Your task to perform on an android device: turn off sleep mode Image 0: 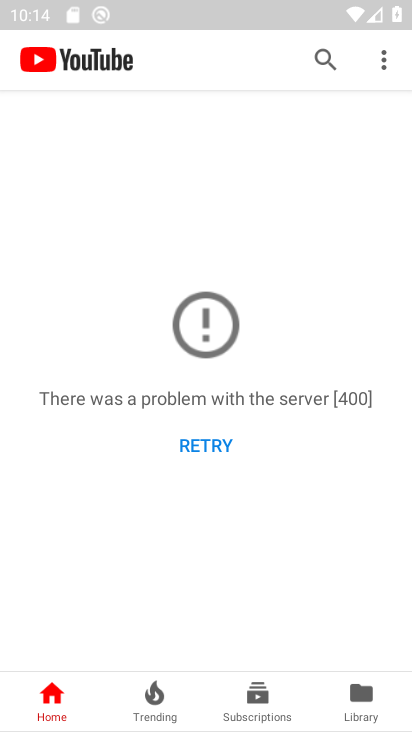
Step 0: press home button
Your task to perform on an android device: turn off sleep mode Image 1: 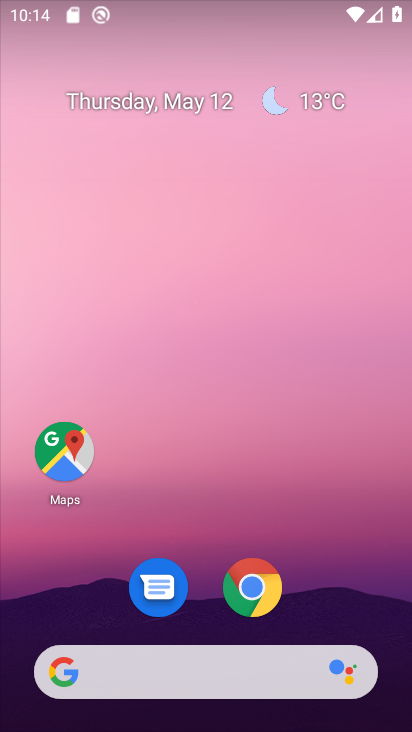
Step 1: drag from (197, 557) to (262, 45)
Your task to perform on an android device: turn off sleep mode Image 2: 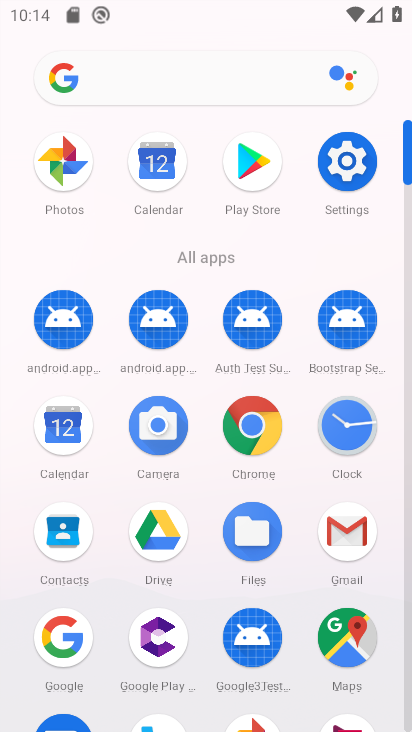
Step 2: click (339, 164)
Your task to perform on an android device: turn off sleep mode Image 3: 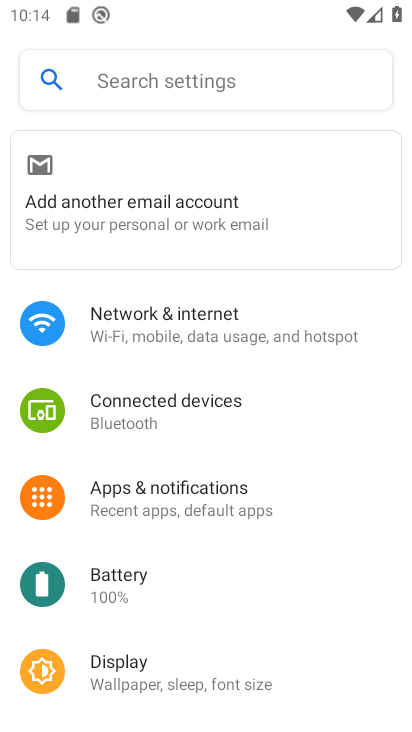
Step 3: click (166, 685)
Your task to perform on an android device: turn off sleep mode Image 4: 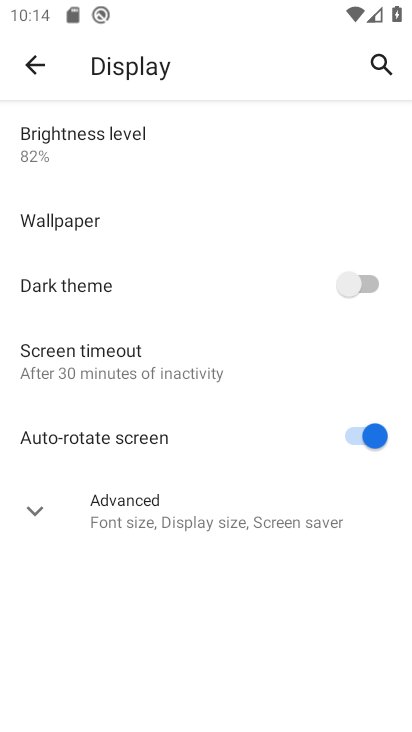
Step 4: click (189, 360)
Your task to perform on an android device: turn off sleep mode Image 5: 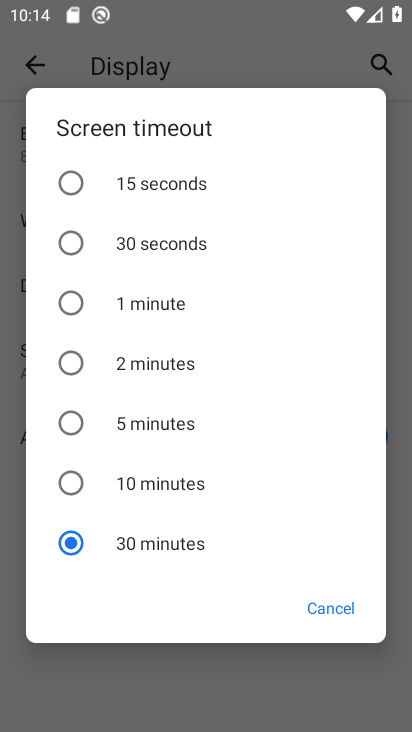
Step 5: click (189, 360)
Your task to perform on an android device: turn off sleep mode Image 6: 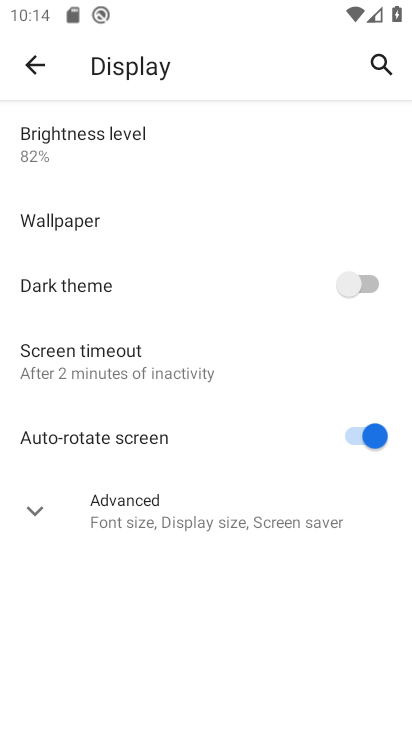
Step 6: task complete